Your task to perform on an android device: open a bookmark in the chrome app Image 0: 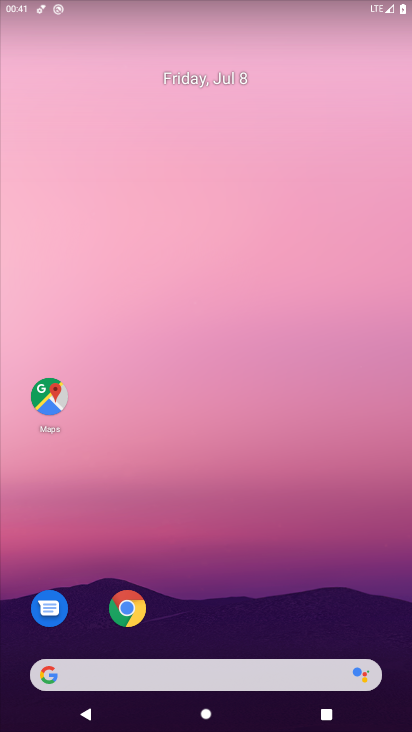
Step 0: drag from (278, 608) to (319, 38)
Your task to perform on an android device: open a bookmark in the chrome app Image 1: 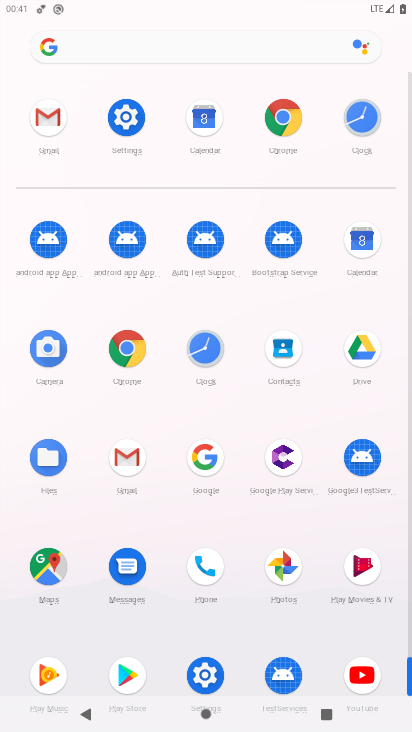
Step 1: click (282, 122)
Your task to perform on an android device: open a bookmark in the chrome app Image 2: 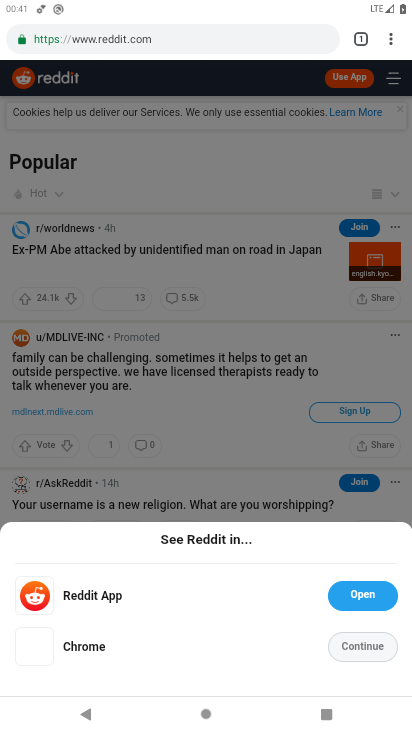
Step 2: task complete